Your task to perform on an android device: change the clock display to show seconds Image 0: 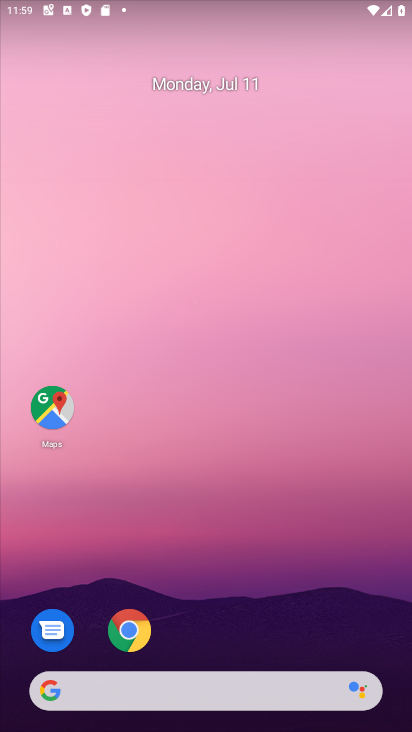
Step 0: drag from (303, 628) to (275, 38)
Your task to perform on an android device: change the clock display to show seconds Image 1: 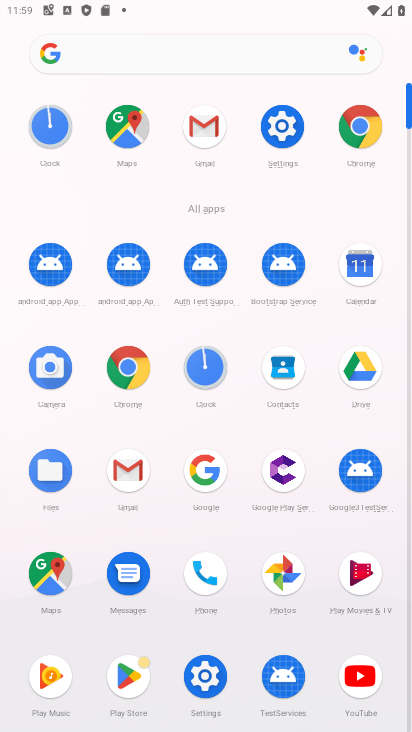
Step 1: click (206, 370)
Your task to perform on an android device: change the clock display to show seconds Image 2: 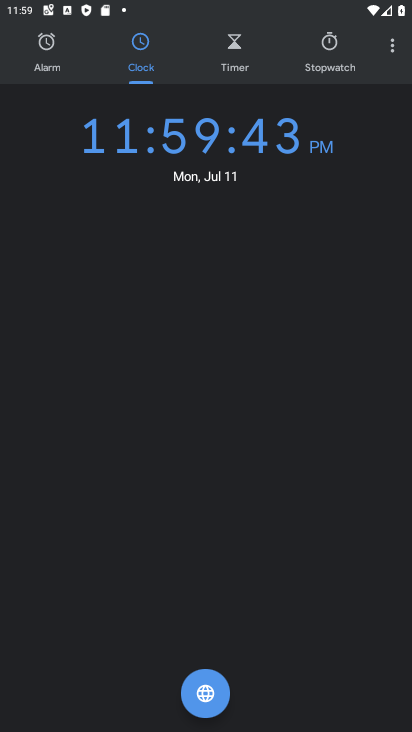
Step 2: click (391, 51)
Your task to perform on an android device: change the clock display to show seconds Image 3: 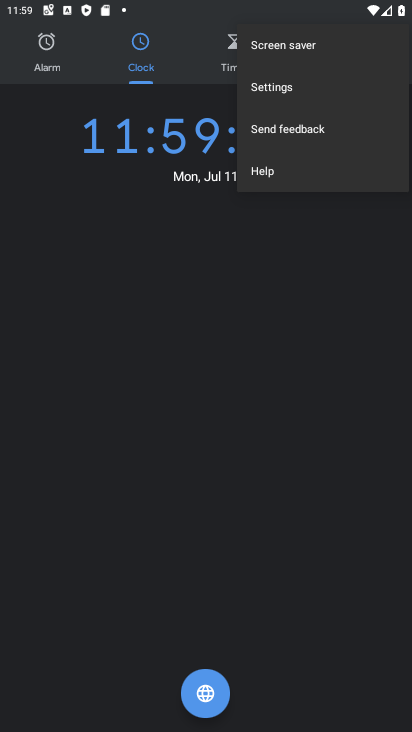
Step 3: click (270, 95)
Your task to perform on an android device: change the clock display to show seconds Image 4: 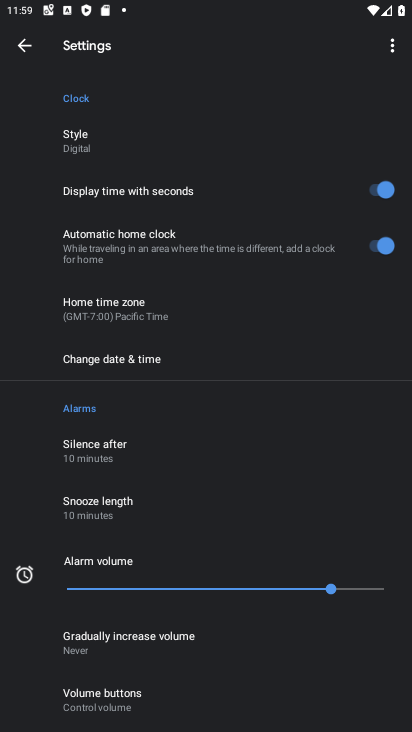
Step 4: task complete